Your task to perform on an android device: turn off javascript in the chrome app Image 0: 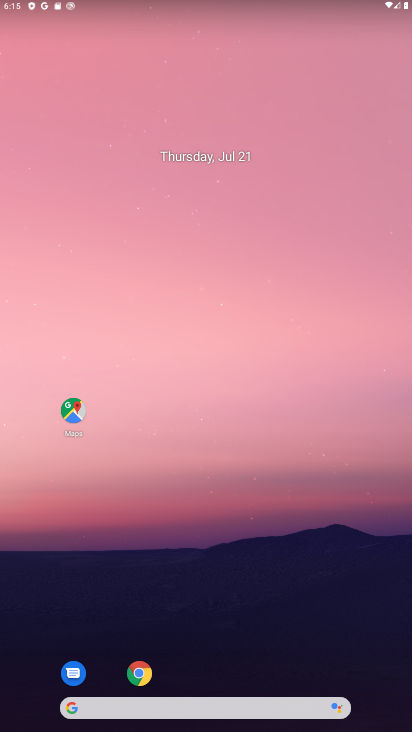
Step 0: click (133, 678)
Your task to perform on an android device: turn off javascript in the chrome app Image 1: 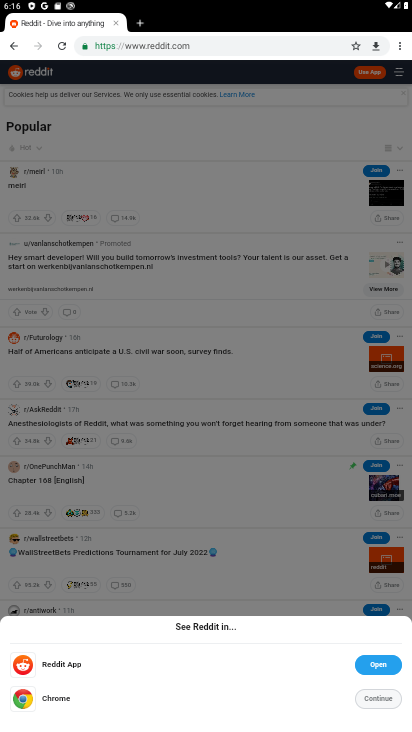
Step 1: click (400, 45)
Your task to perform on an android device: turn off javascript in the chrome app Image 2: 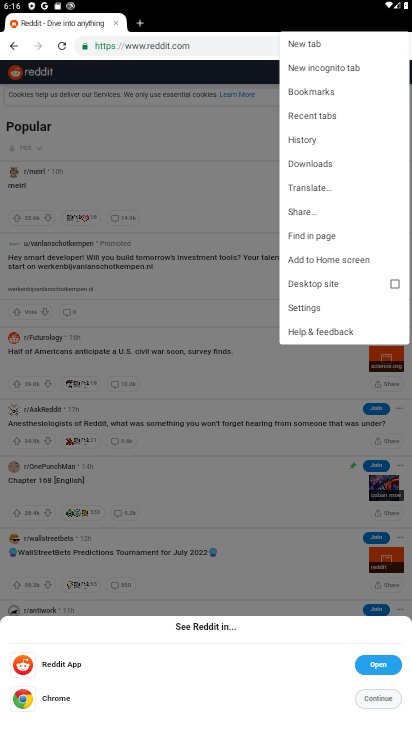
Step 2: click (309, 308)
Your task to perform on an android device: turn off javascript in the chrome app Image 3: 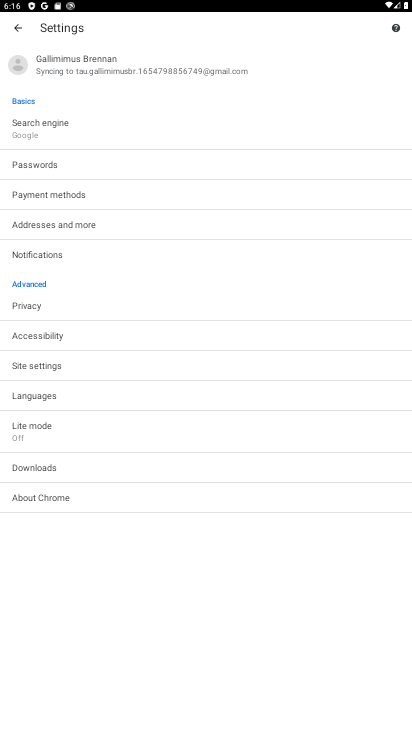
Step 3: click (50, 369)
Your task to perform on an android device: turn off javascript in the chrome app Image 4: 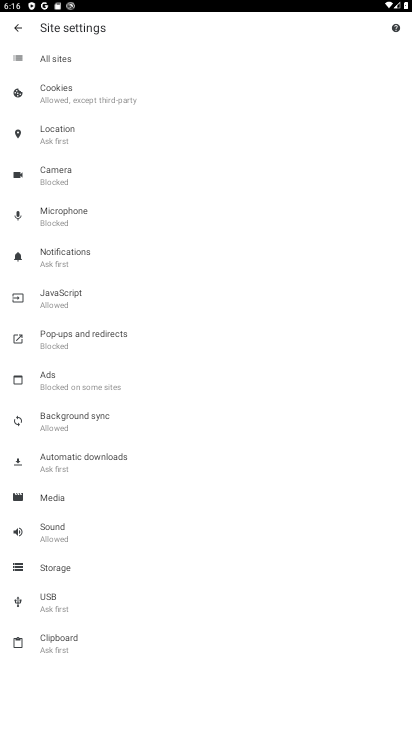
Step 4: click (61, 297)
Your task to perform on an android device: turn off javascript in the chrome app Image 5: 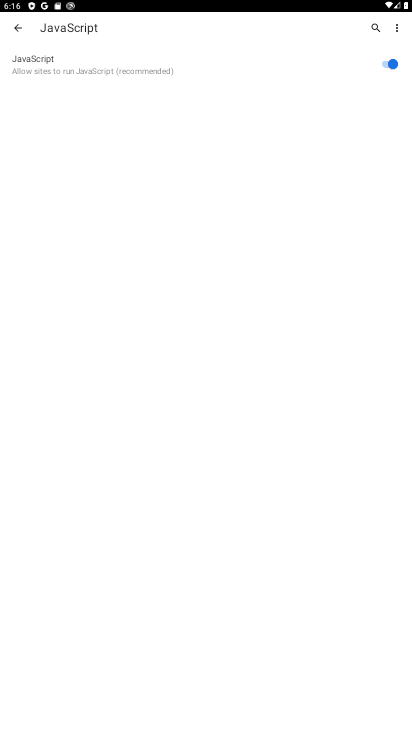
Step 5: click (381, 64)
Your task to perform on an android device: turn off javascript in the chrome app Image 6: 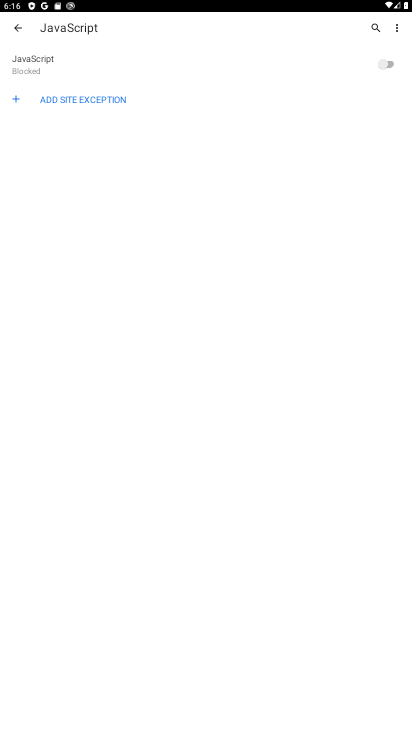
Step 6: task complete